Your task to perform on an android device: Search for Italian restaurants on Maps Image 0: 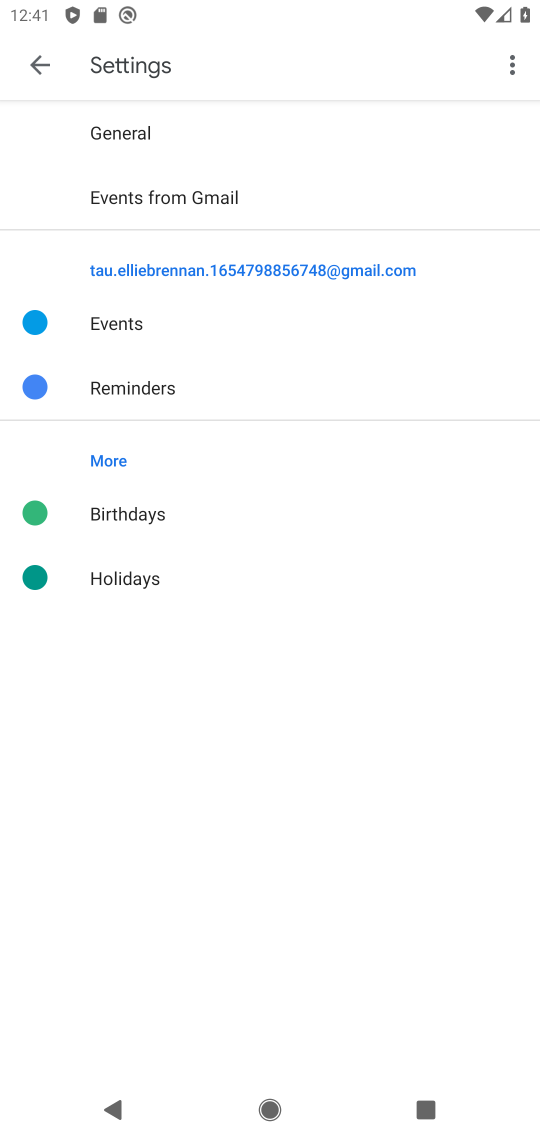
Step 0: press home button
Your task to perform on an android device: Search for Italian restaurants on Maps Image 1: 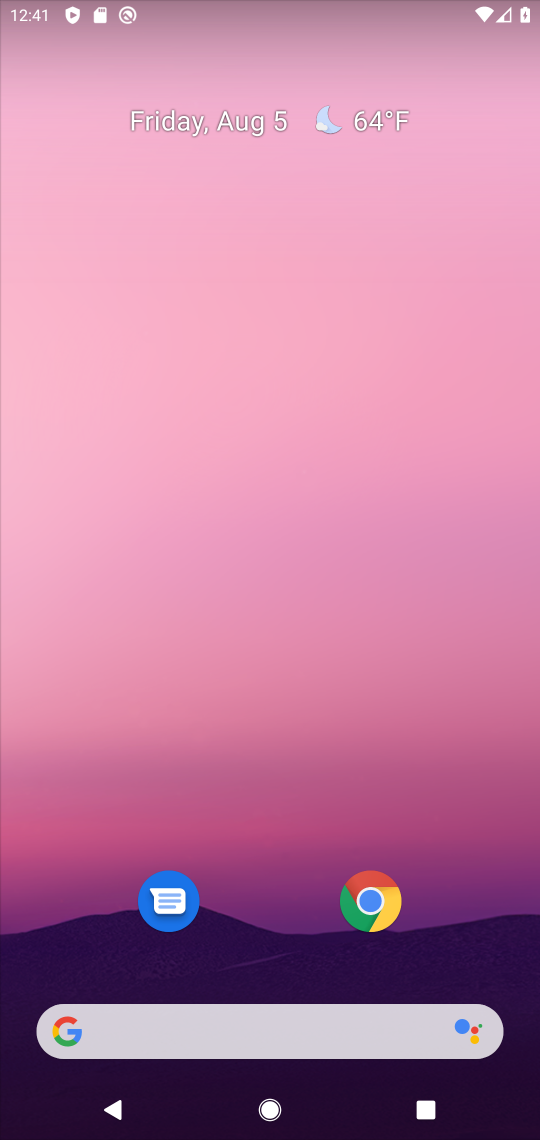
Step 1: drag from (312, 893) to (209, 62)
Your task to perform on an android device: Search for Italian restaurants on Maps Image 2: 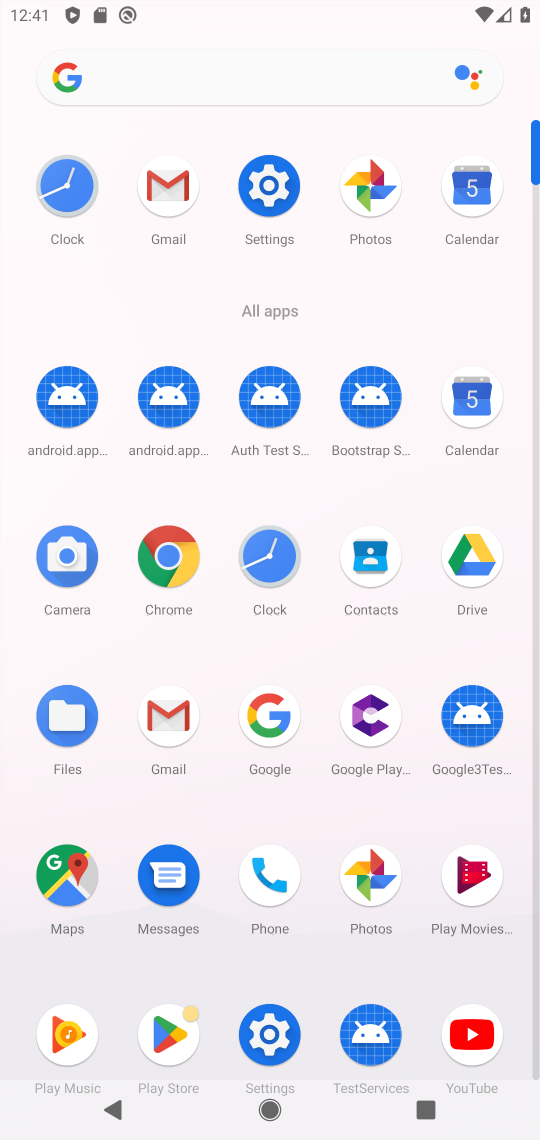
Step 2: click (63, 900)
Your task to perform on an android device: Search for Italian restaurants on Maps Image 3: 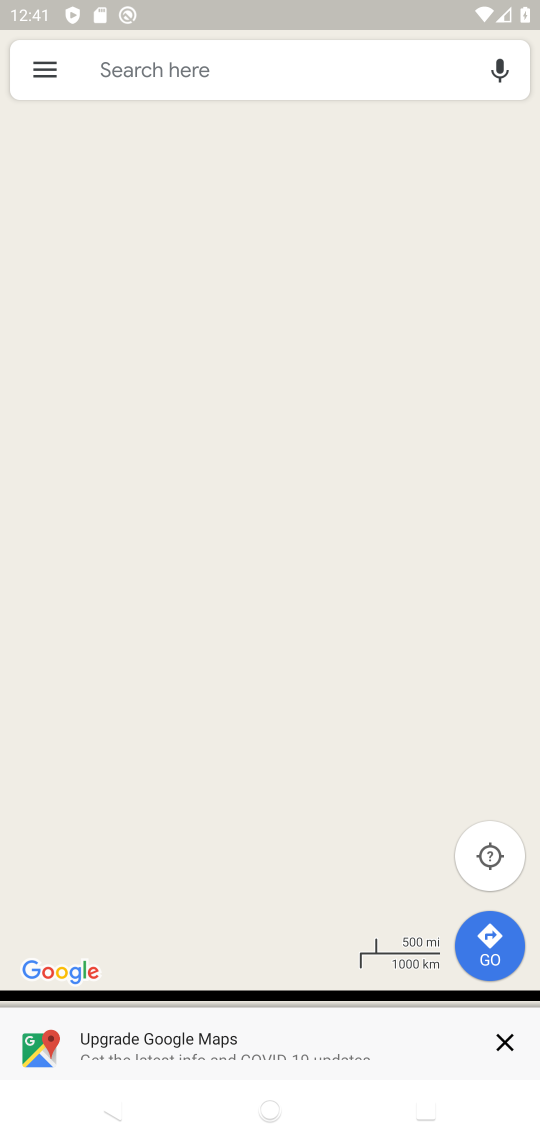
Step 3: click (186, 81)
Your task to perform on an android device: Search for Italian restaurants on Maps Image 4: 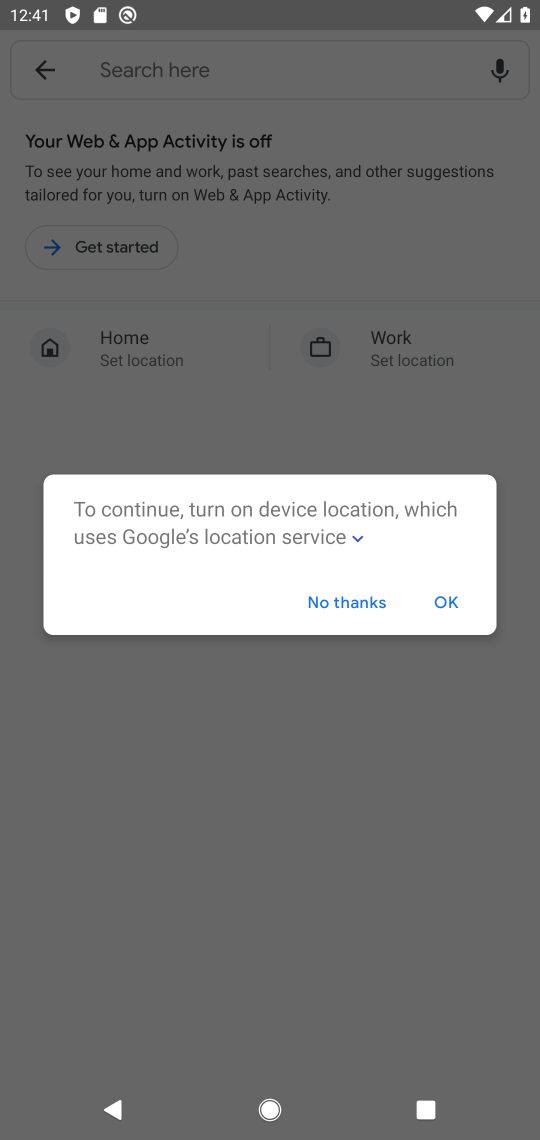
Step 4: click (434, 596)
Your task to perform on an android device: Search for Italian restaurants on Maps Image 5: 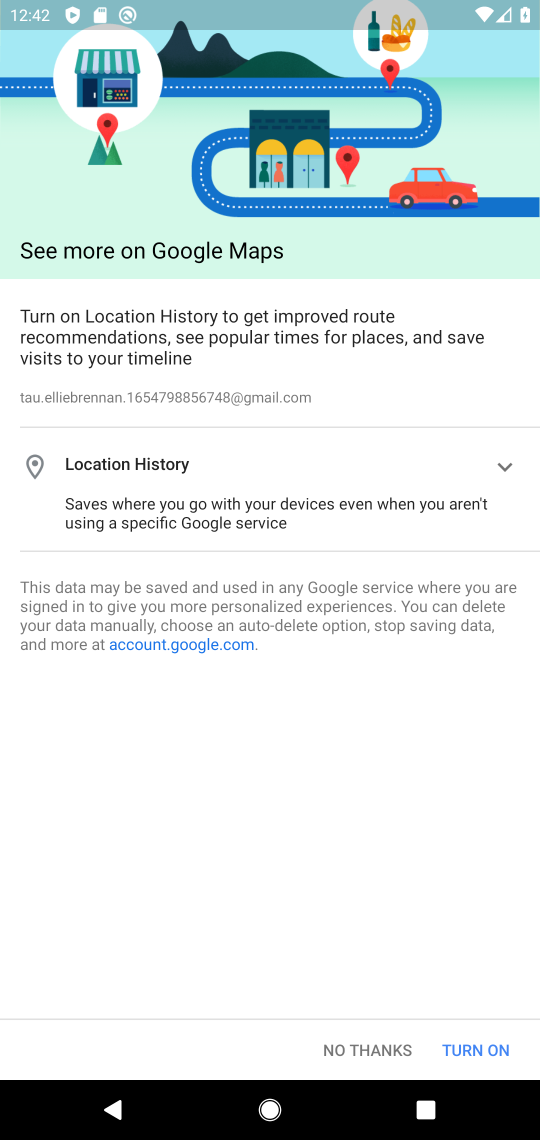
Step 5: type "italian"
Your task to perform on an android device: Search for Italian restaurants on Maps Image 6: 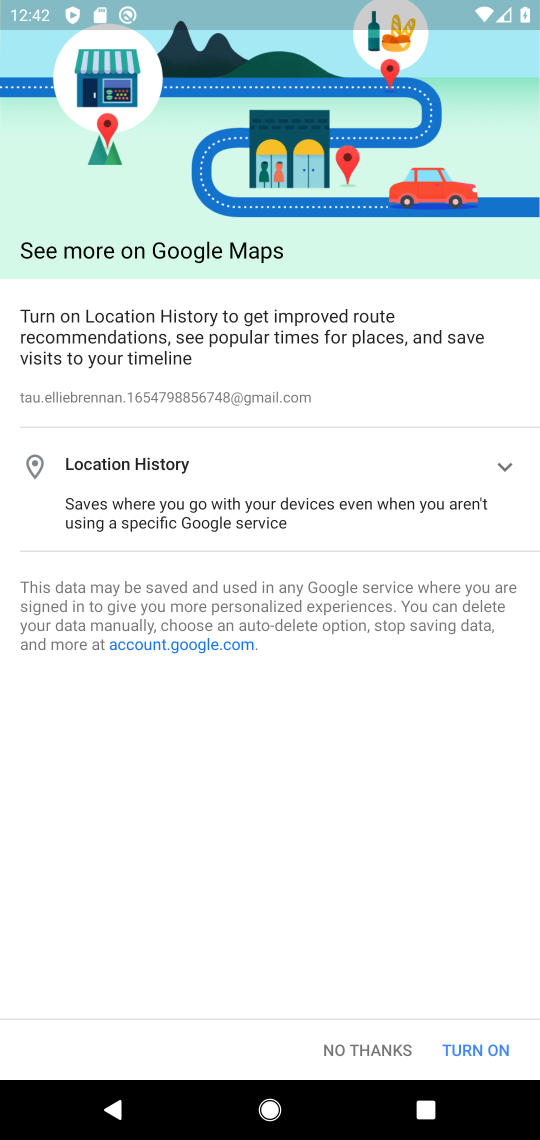
Step 6: click (386, 1049)
Your task to perform on an android device: Search for Italian restaurants on Maps Image 7: 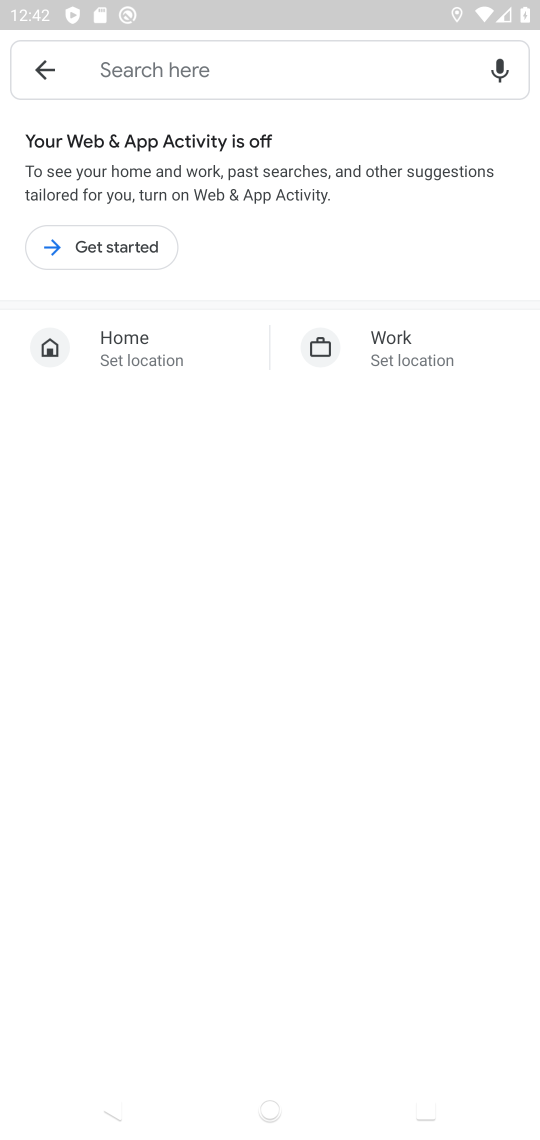
Step 7: click (130, 72)
Your task to perform on an android device: Search for Italian restaurants on Maps Image 8: 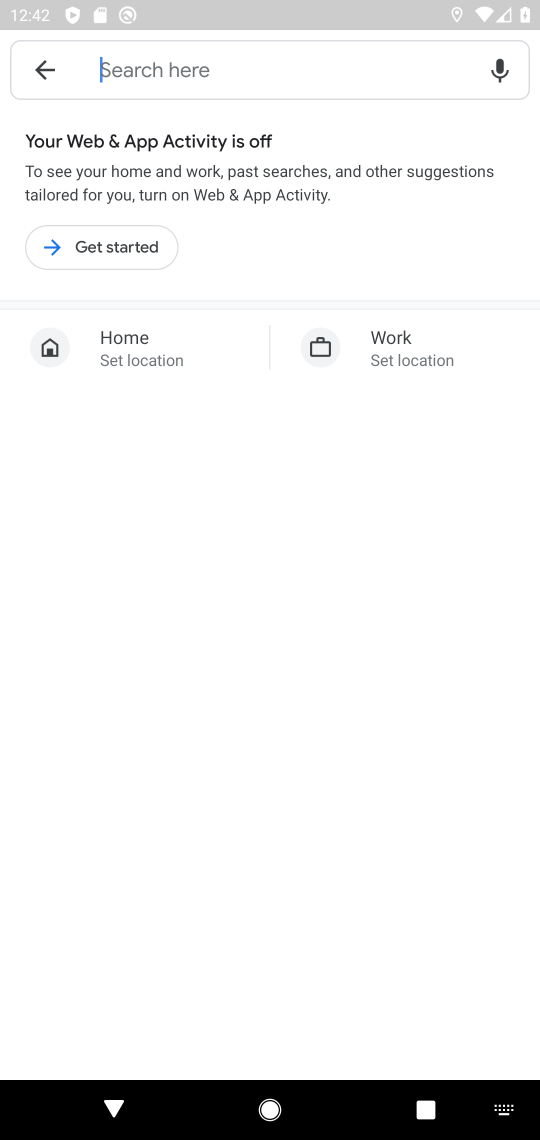
Step 8: type "italian restaurant"
Your task to perform on an android device: Search for Italian restaurants on Maps Image 9: 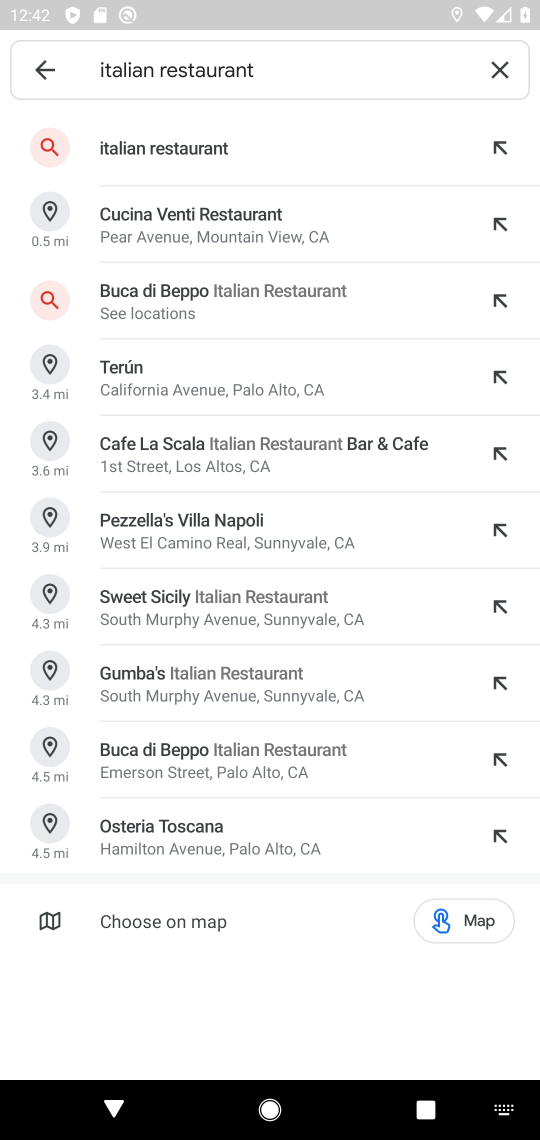
Step 9: click (212, 158)
Your task to perform on an android device: Search for Italian restaurants on Maps Image 10: 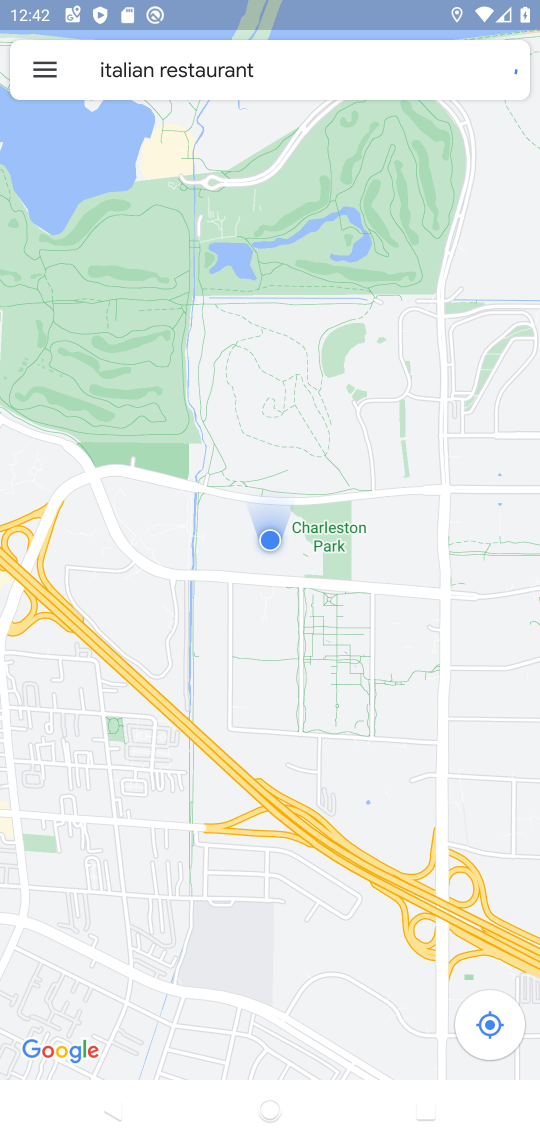
Step 10: task complete